Your task to perform on an android device: Search for vegetarian restaurants on Maps Image 0: 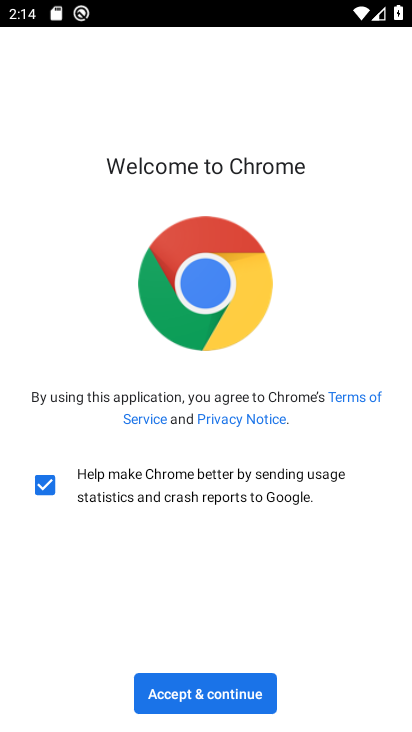
Step 0: press home button
Your task to perform on an android device: Search for vegetarian restaurants on Maps Image 1: 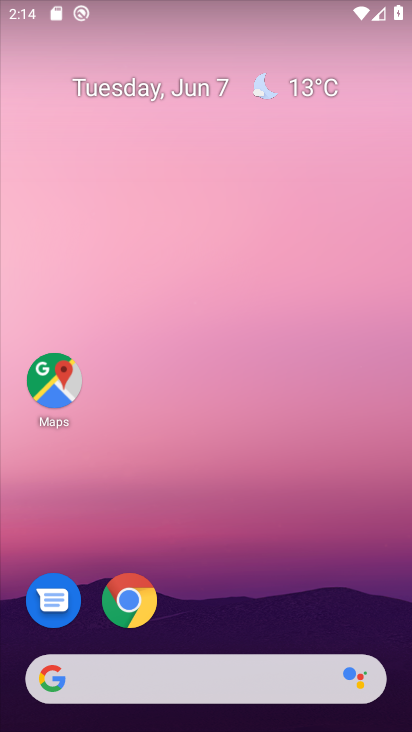
Step 1: drag from (229, 588) to (361, 0)
Your task to perform on an android device: Search for vegetarian restaurants on Maps Image 2: 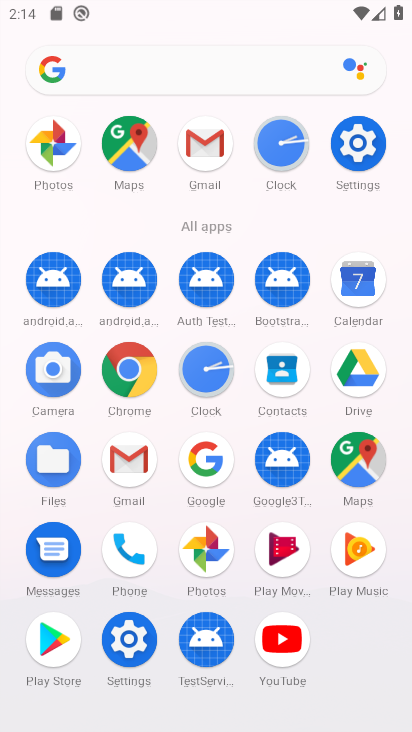
Step 2: click (358, 462)
Your task to perform on an android device: Search for vegetarian restaurants on Maps Image 3: 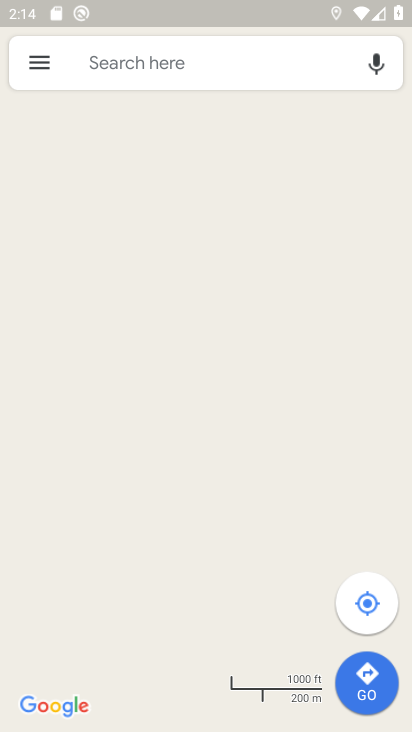
Step 3: click (177, 68)
Your task to perform on an android device: Search for vegetarian restaurants on Maps Image 4: 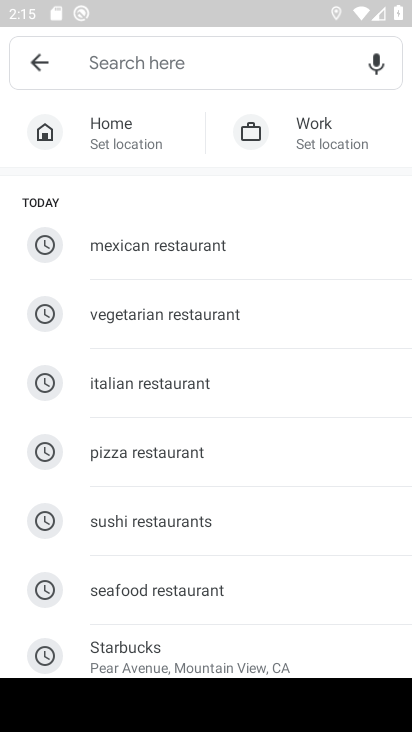
Step 4: type "vegetarian restaurants"
Your task to perform on an android device: Search for vegetarian restaurants on Maps Image 5: 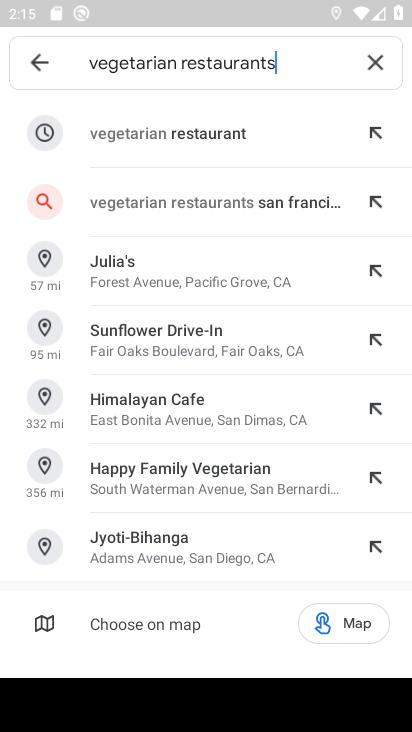
Step 5: click (188, 135)
Your task to perform on an android device: Search for vegetarian restaurants on Maps Image 6: 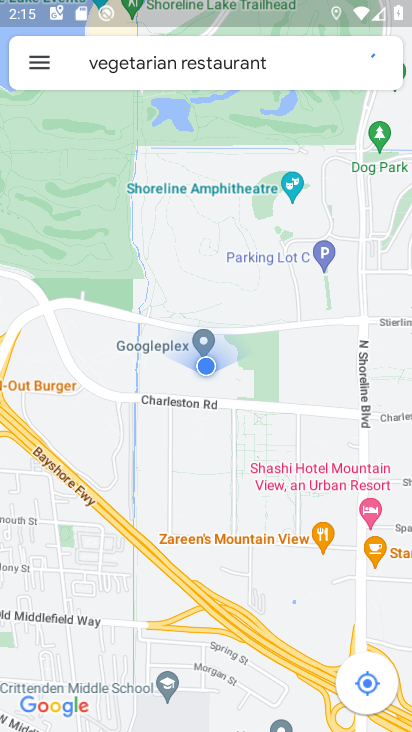
Step 6: task complete